Your task to perform on an android device: Go to Wikipedia Image 0: 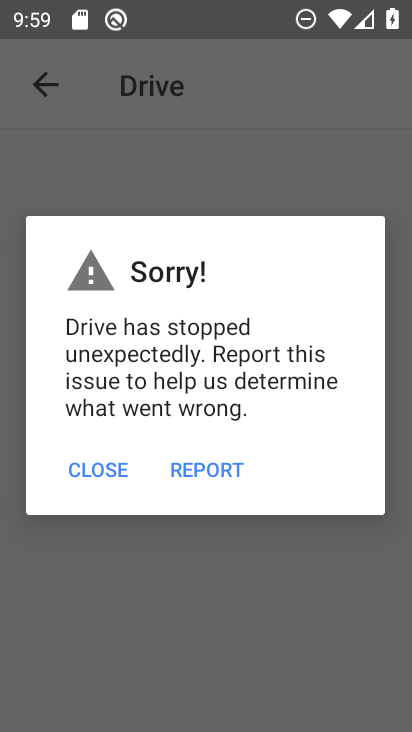
Step 0: press home button
Your task to perform on an android device: Go to Wikipedia Image 1: 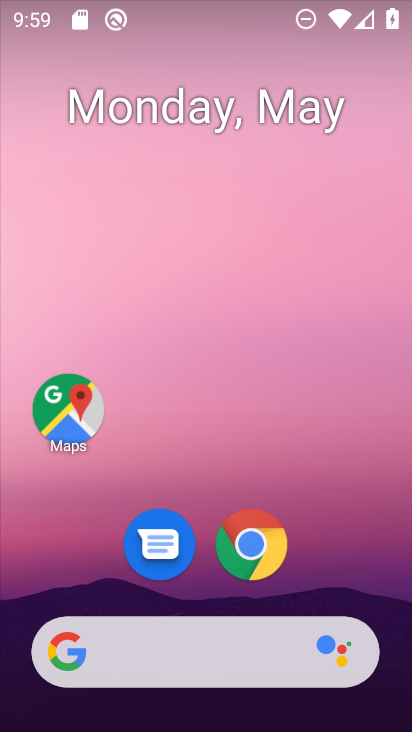
Step 1: click (250, 545)
Your task to perform on an android device: Go to Wikipedia Image 2: 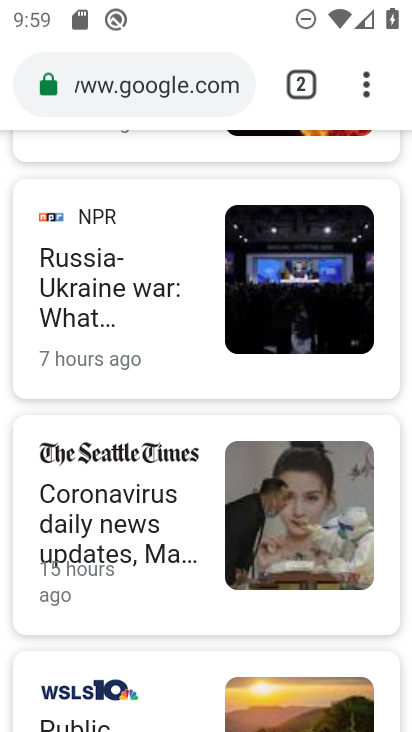
Step 2: click (304, 82)
Your task to perform on an android device: Go to Wikipedia Image 3: 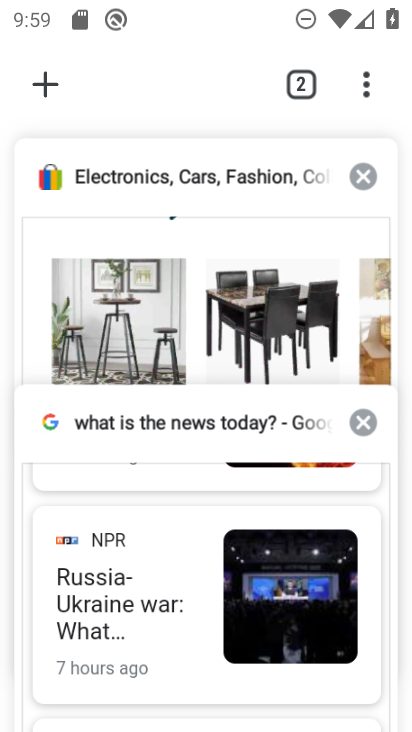
Step 3: click (41, 89)
Your task to perform on an android device: Go to Wikipedia Image 4: 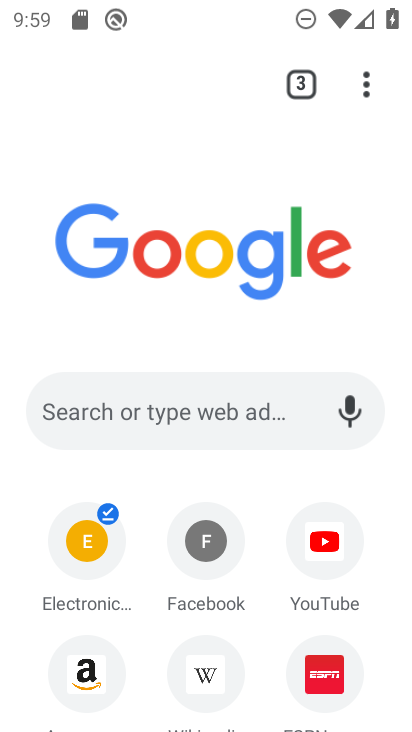
Step 4: click (222, 677)
Your task to perform on an android device: Go to Wikipedia Image 5: 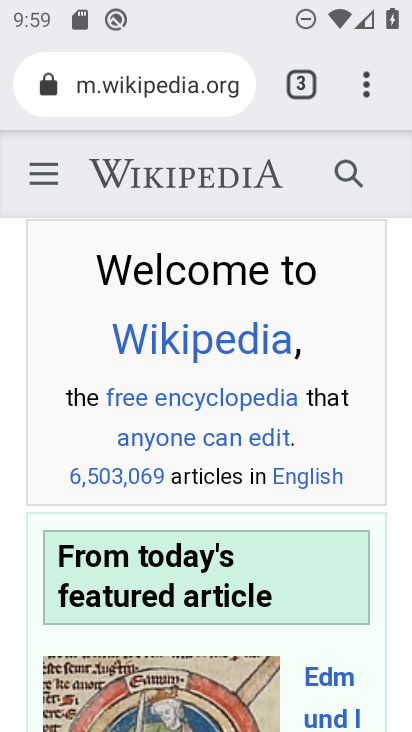
Step 5: task complete